Your task to perform on an android device: Open Google Image 0: 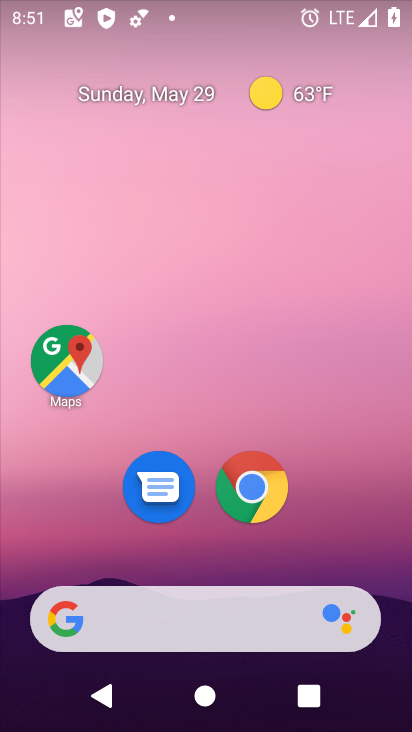
Step 0: drag from (223, 621) to (264, 73)
Your task to perform on an android device: Open Google Image 1: 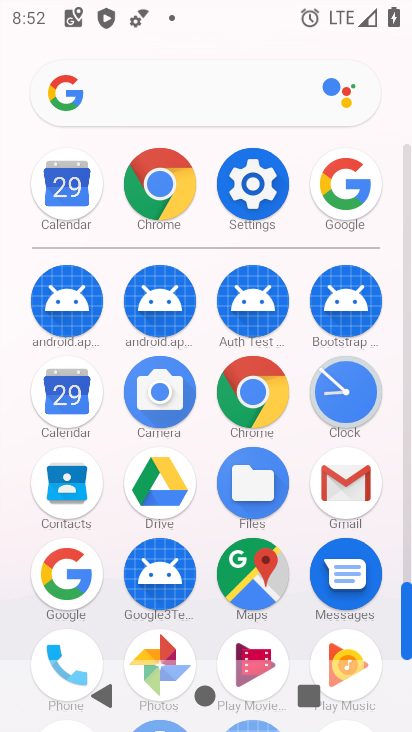
Step 1: drag from (212, 512) to (280, 201)
Your task to perform on an android device: Open Google Image 2: 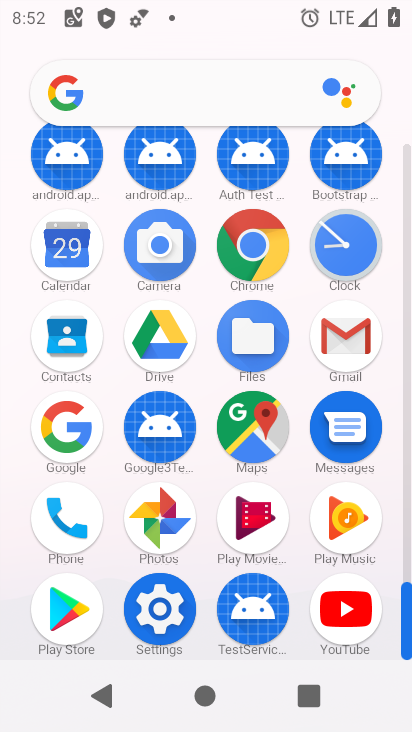
Step 2: click (55, 439)
Your task to perform on an android device: Open Google Image 3: 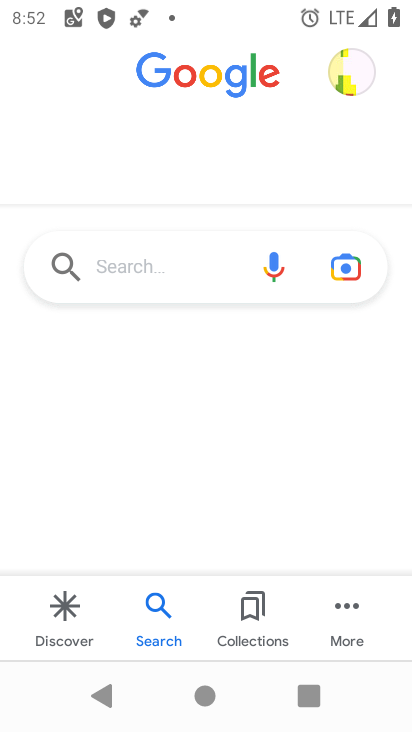
Step 3: task complete